Your task to perform on an android device: Go to display settings Image 0: 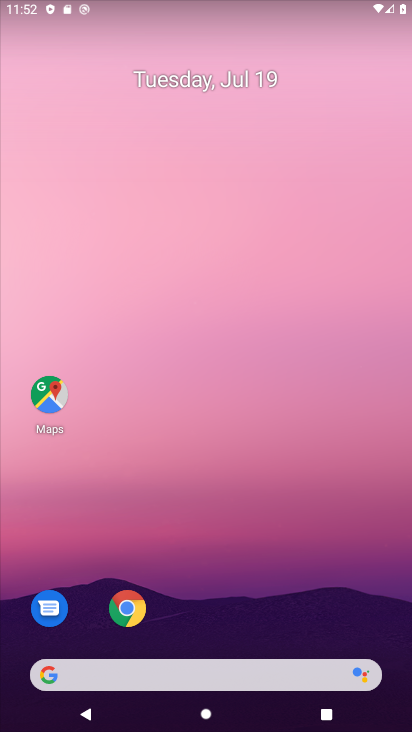
Step 0: drag from (205, 674) to (236, 124)
Your task to perform on an android device: Go to display settings Image 1: 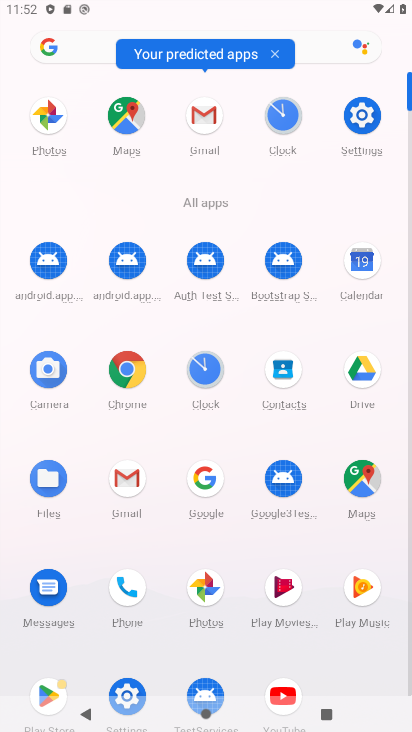
Step 1: click (364, 117)
Your task to perform on an android device: Go to display settings Image 2: 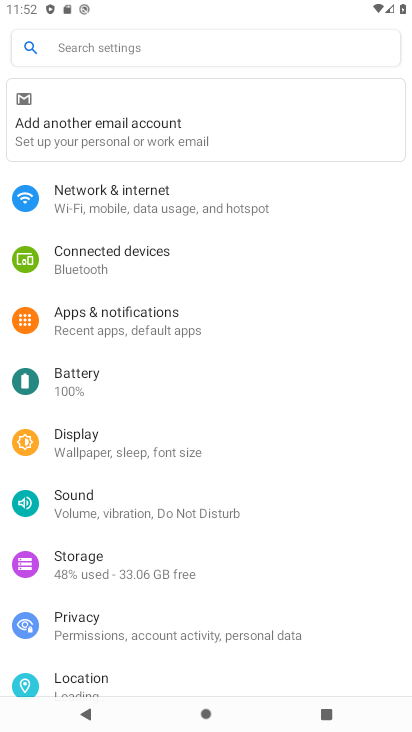
Step 2: click (88, 448)
Your task to perform on an android device: Go to display settings Image 3: 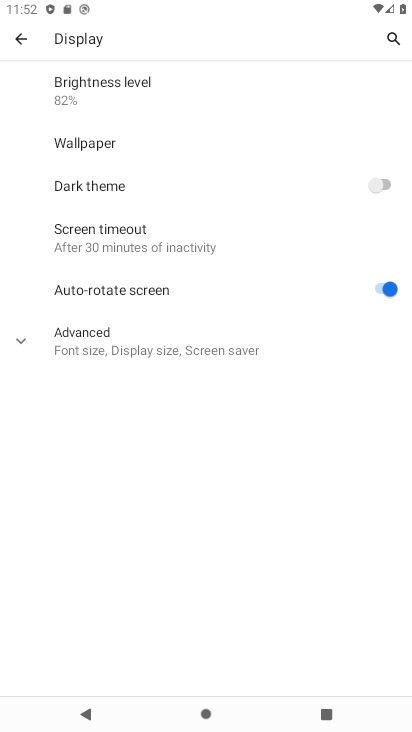
Step 3: task complete